Your task to perform on an android device: Search for vegetarian restaurants on Maps Image 0: 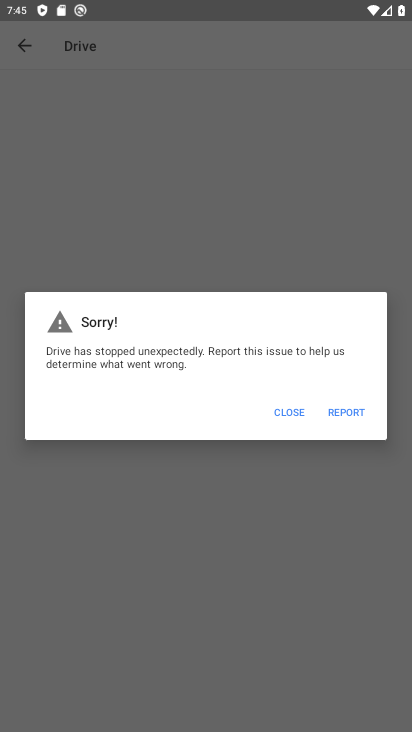
Step 0: press home button
Your task to perform on an android device: Search for vegetarian restaurants on Maps Image 1: 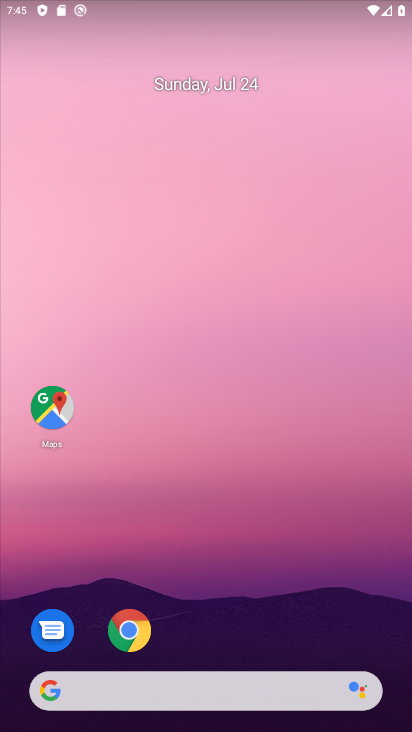
Step 1: click (75, 404)
Your task to perform on an android device: Search for vegetarian restaurants on Maps Image 2: 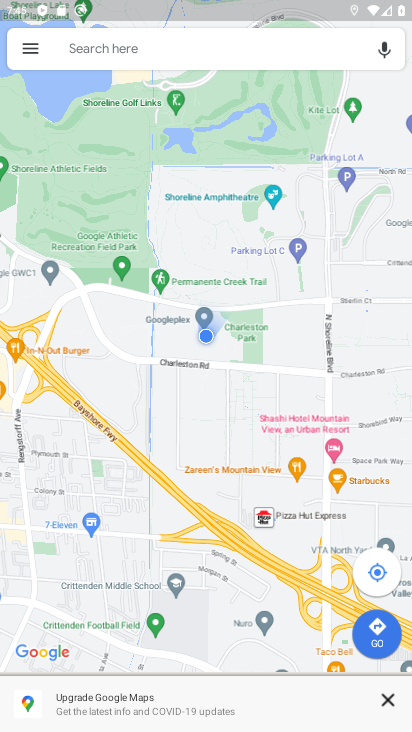
Step 2: click (166, 40)
Your task to perform on an android device: Search for vegetarian restaurants on Maps Image 3: 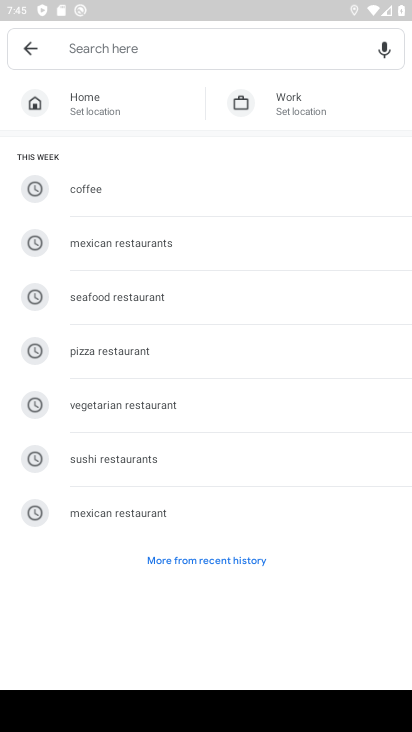
Step 3: type "vegetarian restaurants"
Your task to perform on an android device: Search for vegetarian restaurants on Maps Image 4: 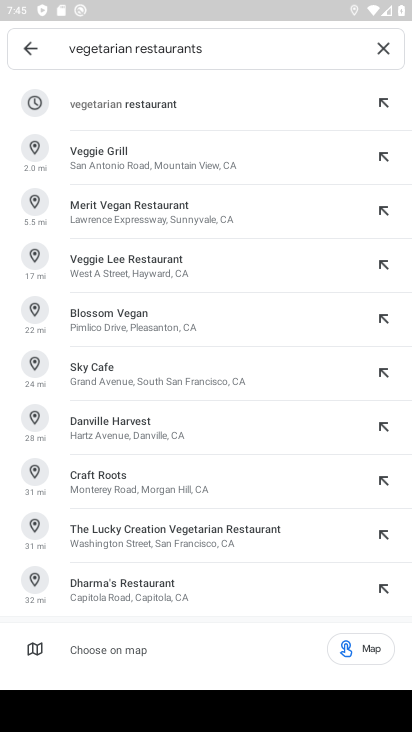
Step 4: click (199, 121)
Your task to perform on an android device: Search for vegetarian restaurants on Maps Image 5: 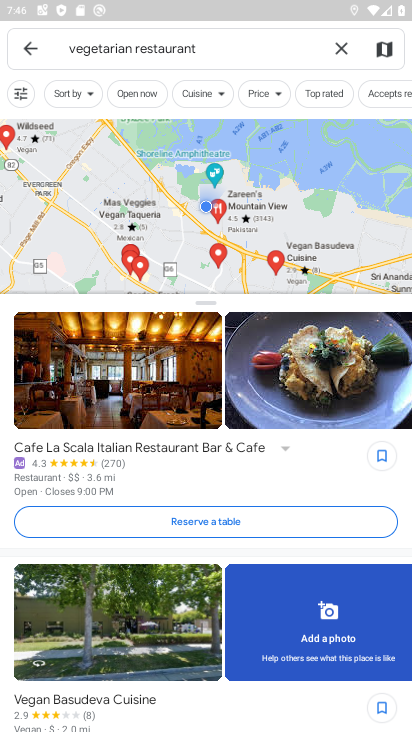
Step 5: task complete